Your task to perform on an android device: What's the weather? Image 0: 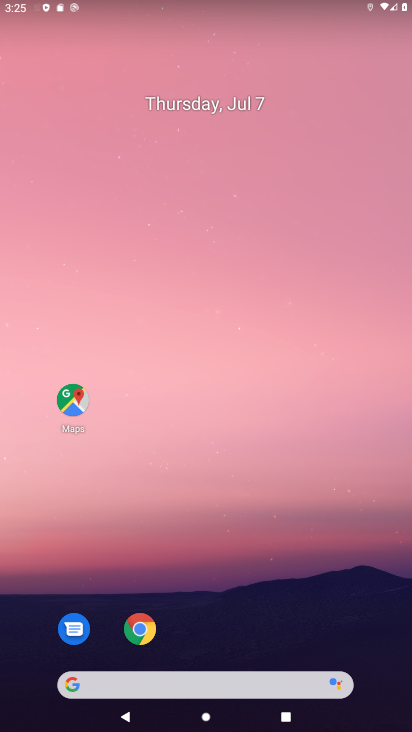
Step 0: press home button
Your task to perform on an android device: What's the weather? Image 1: 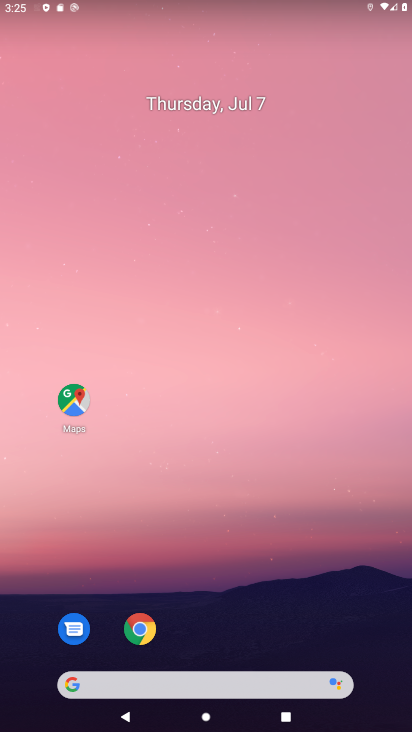
Step 1: click (74, 688)
Your task to perform on an android device: What's the weather? Image 2: 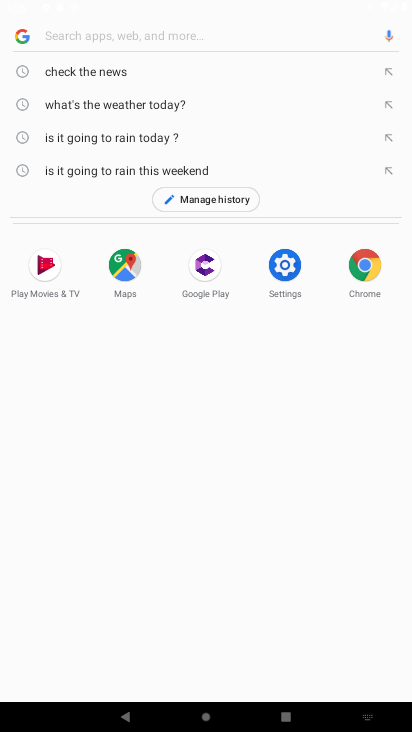
Step 2: type "weather"
Your task to perform on an android device: What's the weather? Image 3: 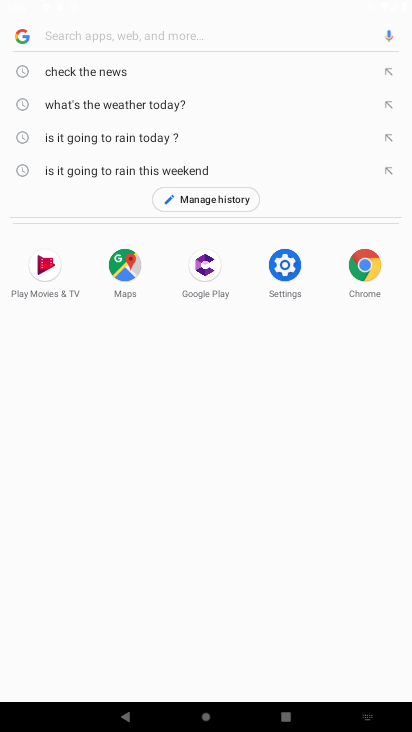
Step 3: click (122, 38)
Your task to perform on an android device: What's the weather? Image 4: 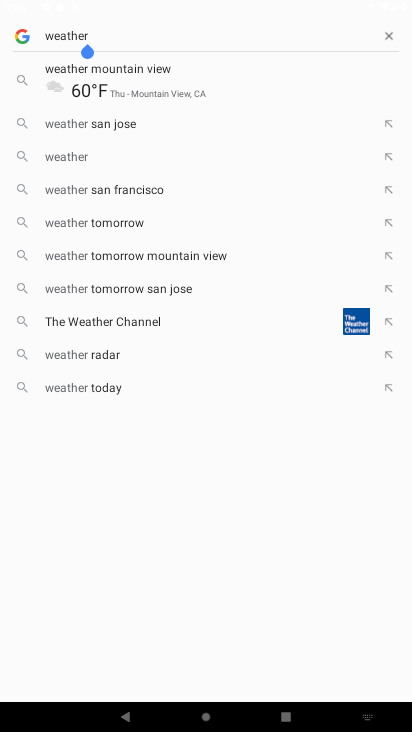
Step 4: click (66, 158)
Your task to perform on an android device: What's the weather? Image 5: 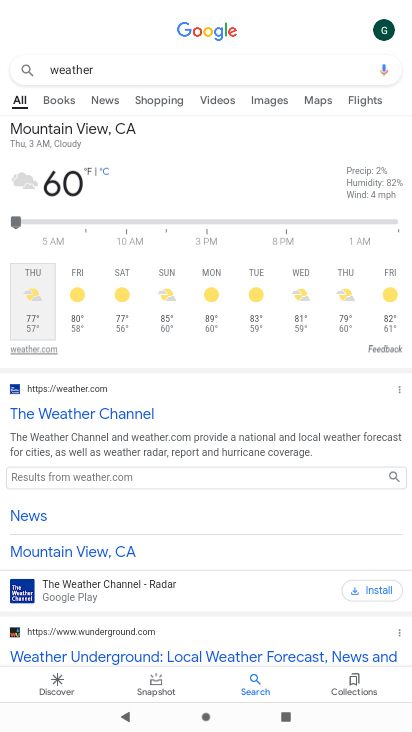
Step 5: task complete